Your task to perform on an android device: Is it going to rain this weekend? Image 0: 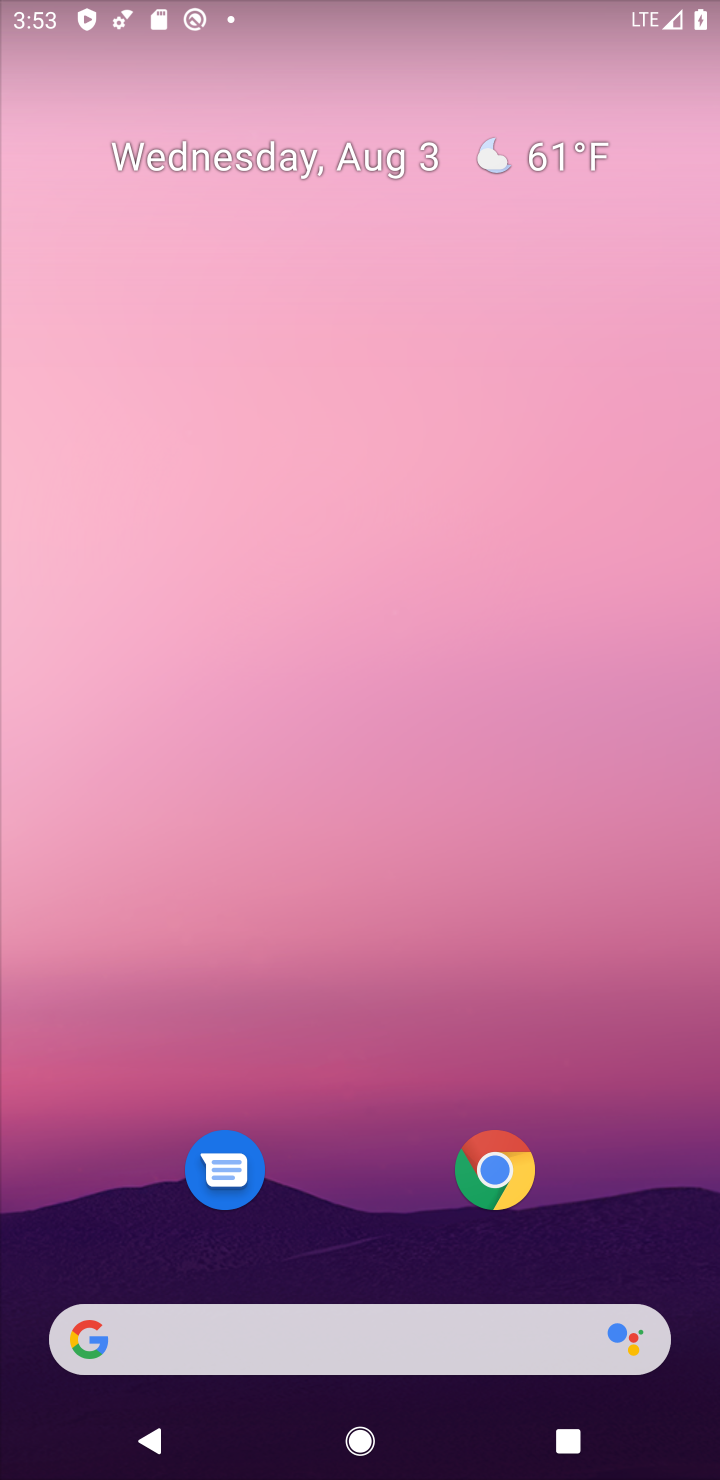
Step 0: click (346, 1351)
Your task to perform on an android device: Is it going to rain this weekend? Image 1: 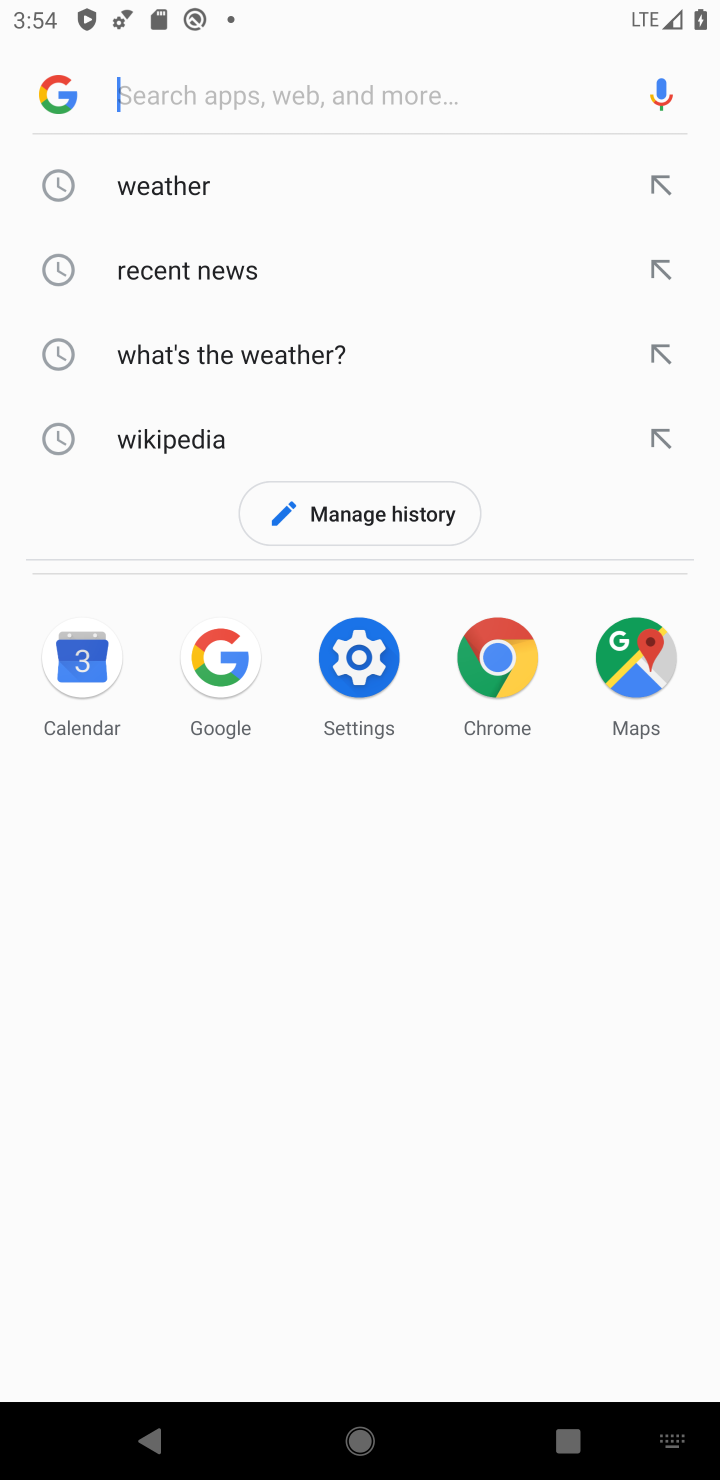
Step 1: click (181, 181)
Your task to perform on an android device: Is it going to rain this weekend? Image 2: 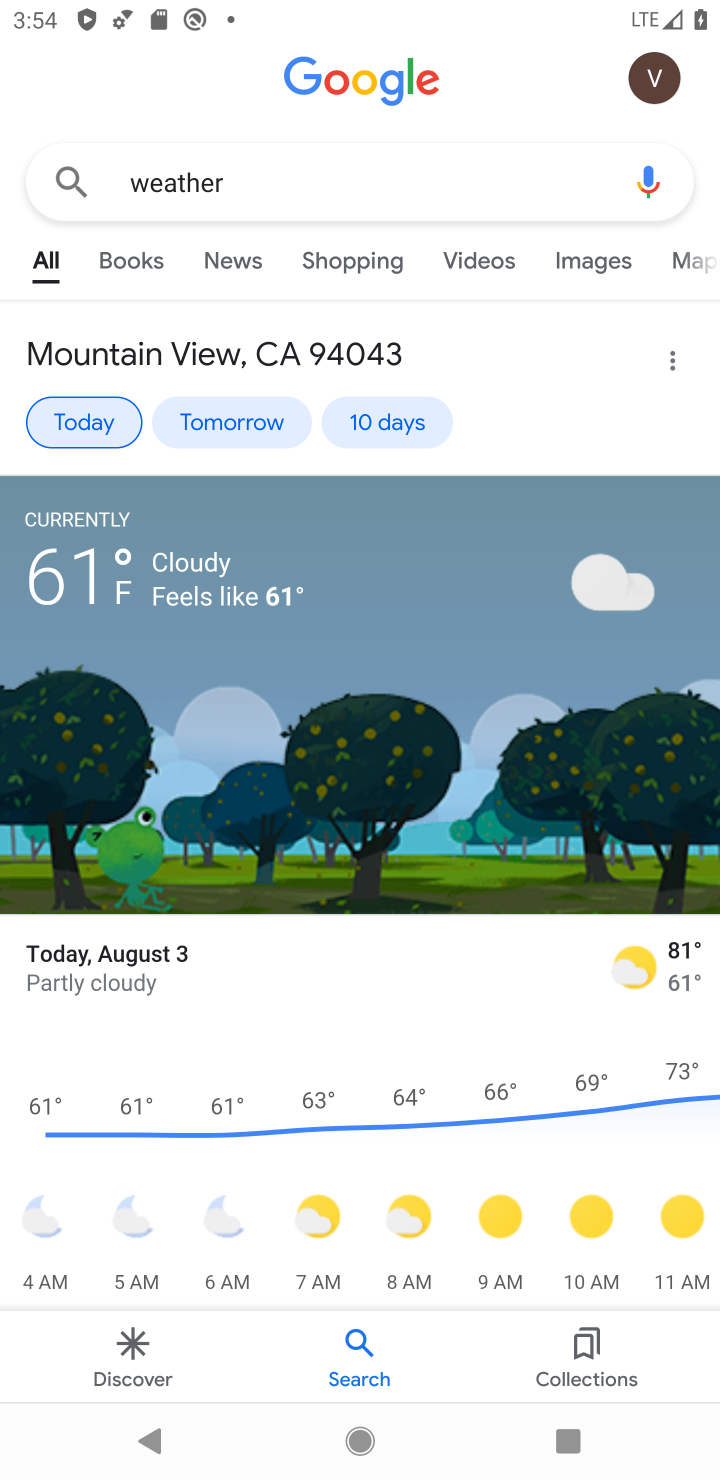
Step 2: click (385, 420)
Your task to perform on an android device: Is it going to rain this weekend? Image 3: 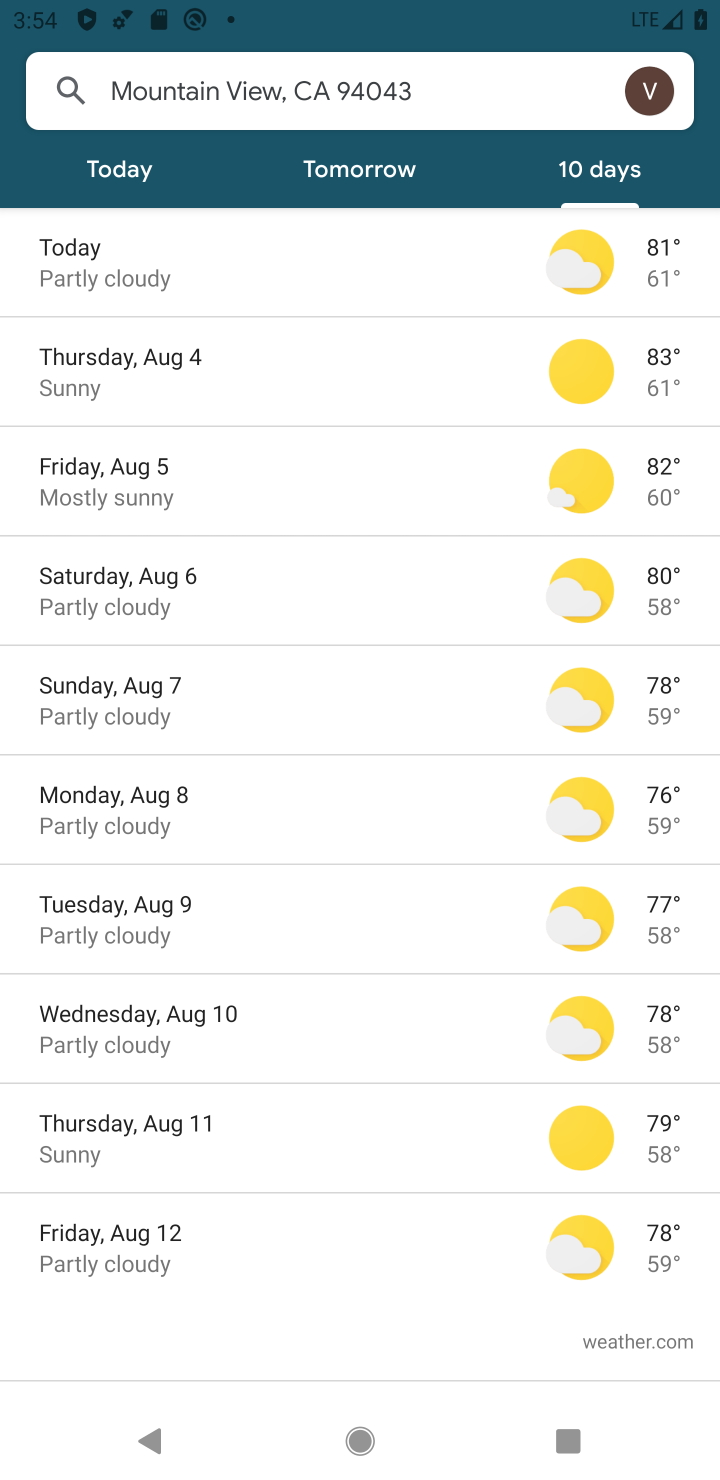
Step 3: task complete